Your task to perform on an android device: change keyboard looks Image 0: 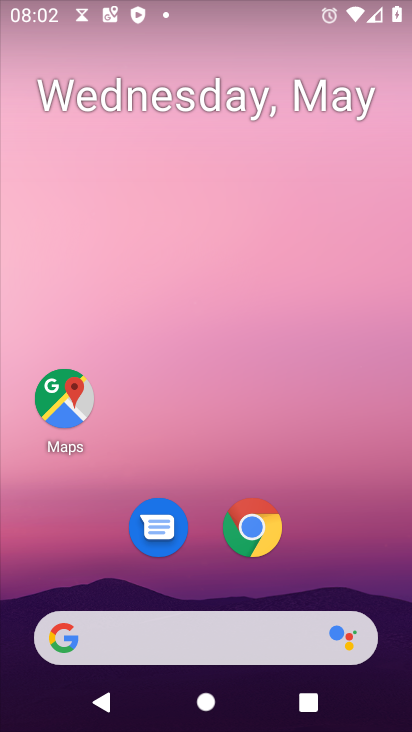
Step 0: drag from (301, 588) to (343, 160)
Your task to perform on an android device: change keyboard looks Image 1: 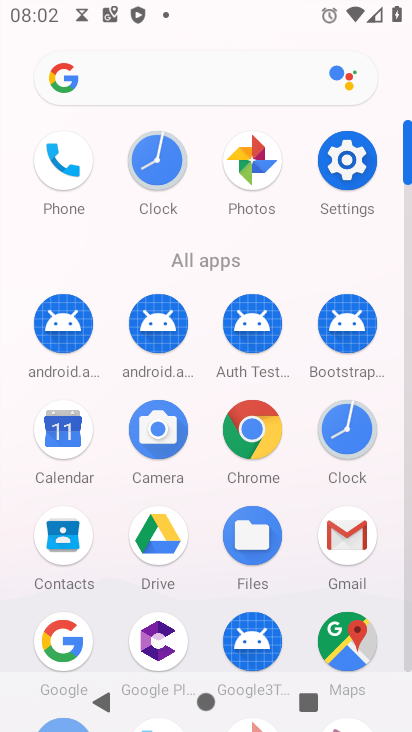
Step 1: click (346, 149)
Your task to perform on an android device: change keyboard looks Image 2: 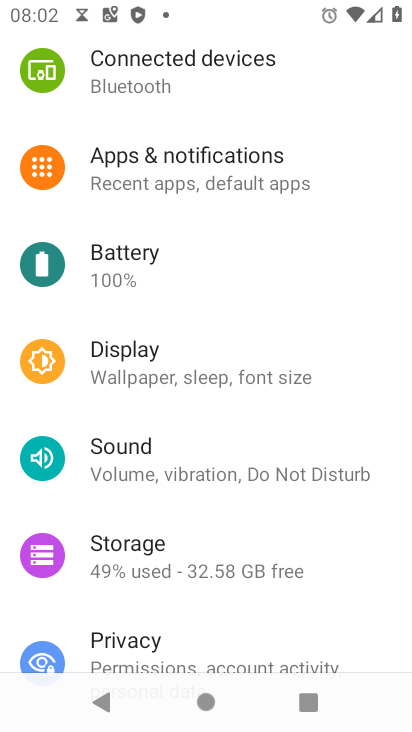
Step 2: drag from (276, 644) to (282, 139)
Your task to perform on an android device: change keyboard looks Image 3: 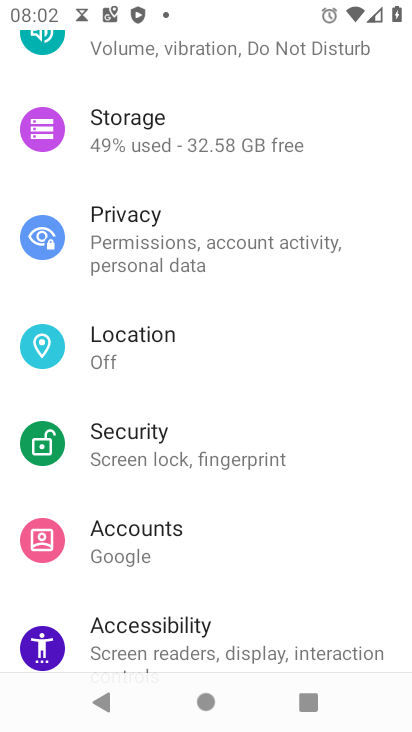
Step 3: drag from (237, 596) to (283, 139)
Your task to perform on an android device: change keyboard looks Image 4: 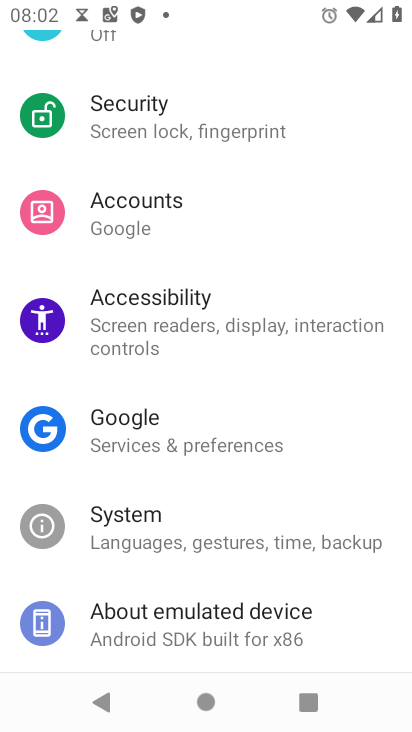
Step 4: click (175, 527)
Your task to perform on an android device: change keyboard looks Image 5: 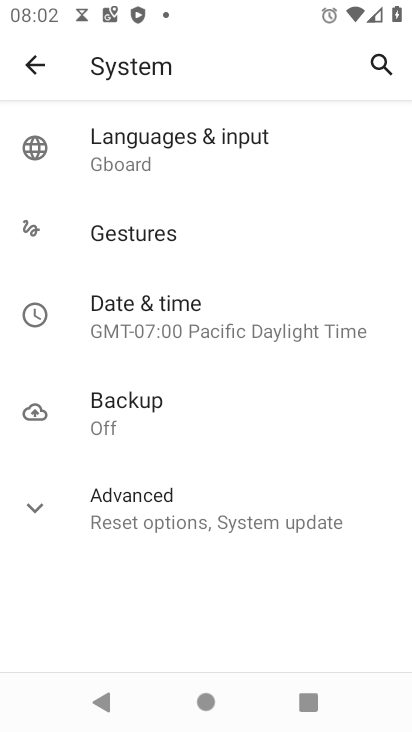
Step 5: click (158, 154)
Your task to perform on an android device: change keyboard looks Image 6: 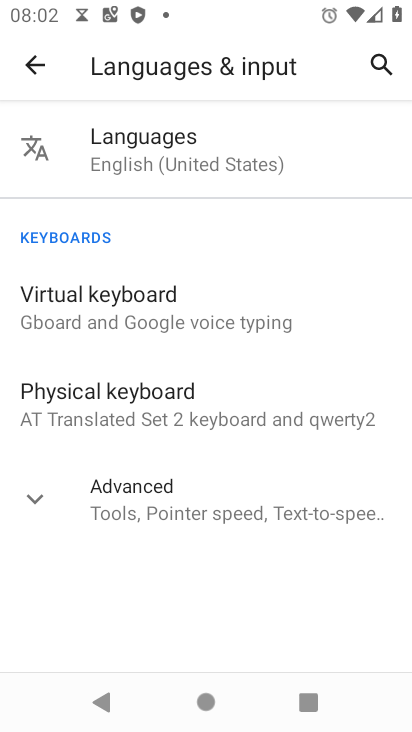
Step 6: click (138, 320)
Your task to perform on an android device: change keyboard looks Image 7: 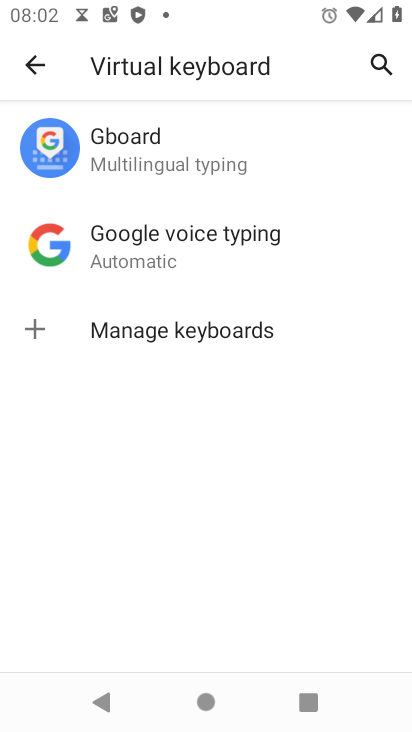
Step 7: click (108, 150)
Your task to perform on an android device: change keyboard looks Image 8: 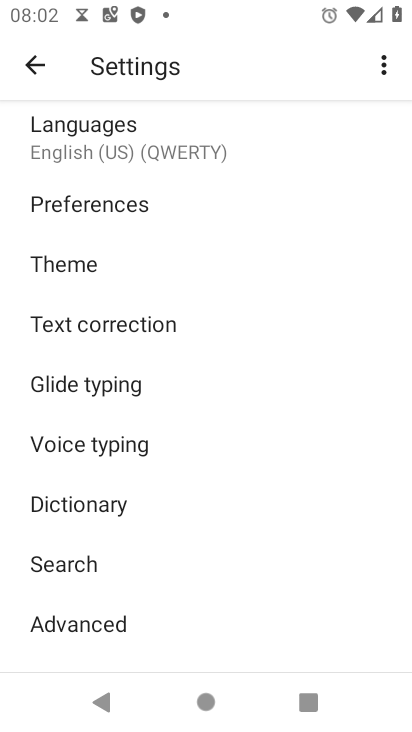
Step 8: click (61, 265)
Your task to perform on an android device: change keyboard looks Image 9: 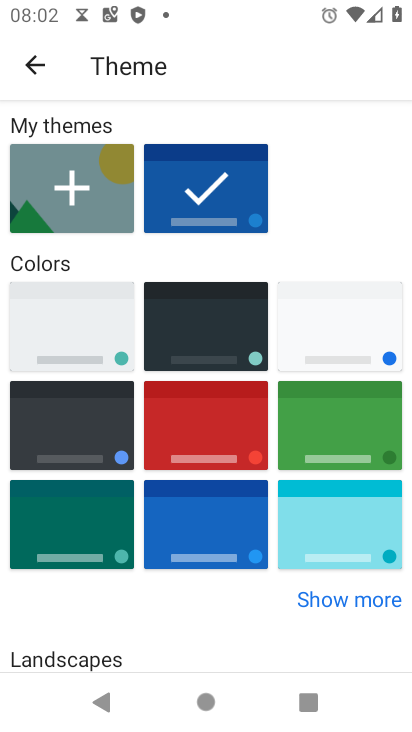
Step 9: click (179, 329)
Your task to perform on an android device: change keyboard looks Image 10: 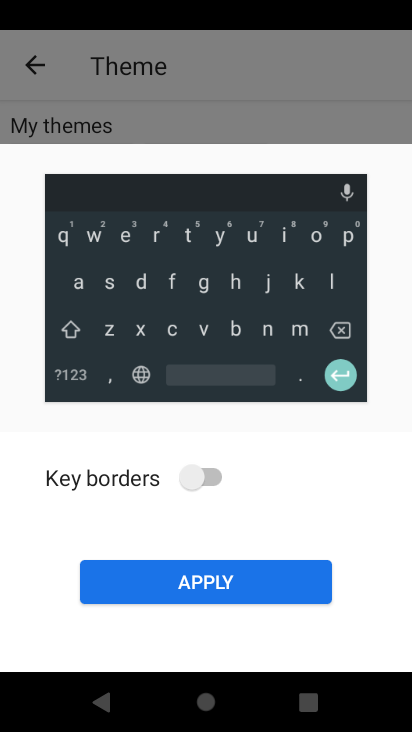
Step 10: click (198, 465)
Your task to perform on an android device: change keyboard looks Image 11: 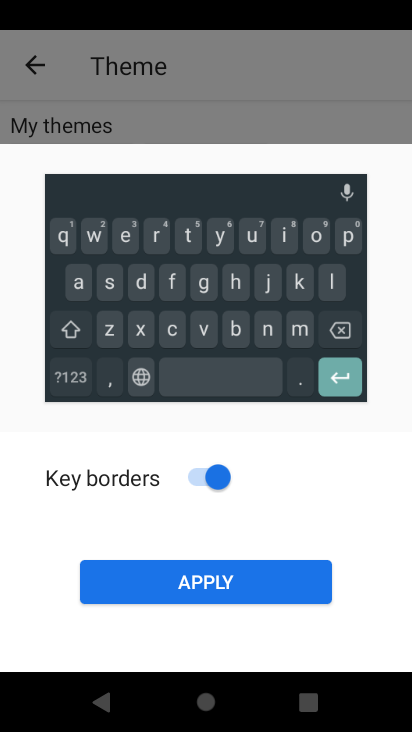
Step 11: click (248, 585)
Your task to perform on an android device: change keyboard looks Image 12: 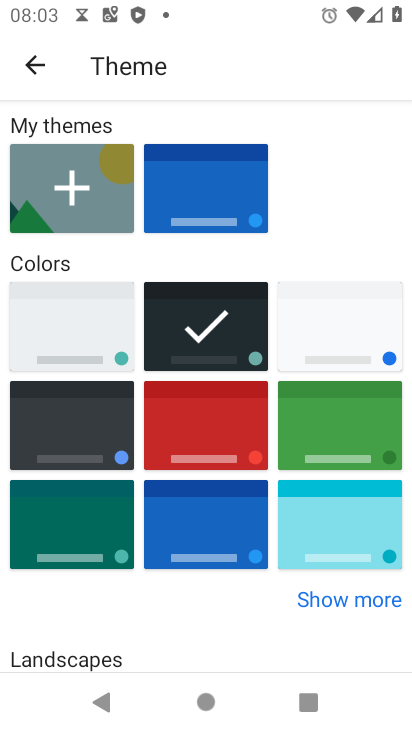
Step 12: task complete